Your task to perform on an android device: turn vacation reply on in the gmail app Image 0: 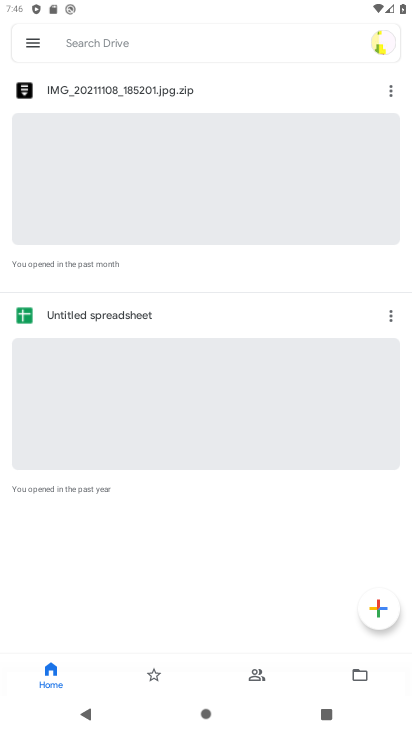
Step 0: press home button
Your task to perform on an android device: turn vacation reply on in the gmail app Image 1: 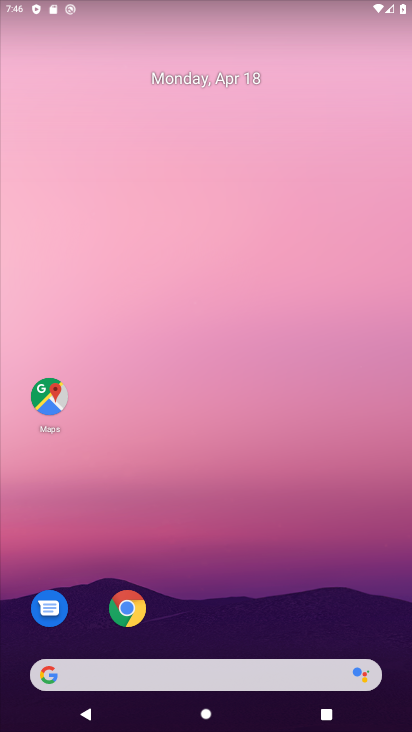
Step 1: drag from (222, 596) to (236, 173)
Your task to perform on an android device: turn vacation reply on in the gmail app Image 2: 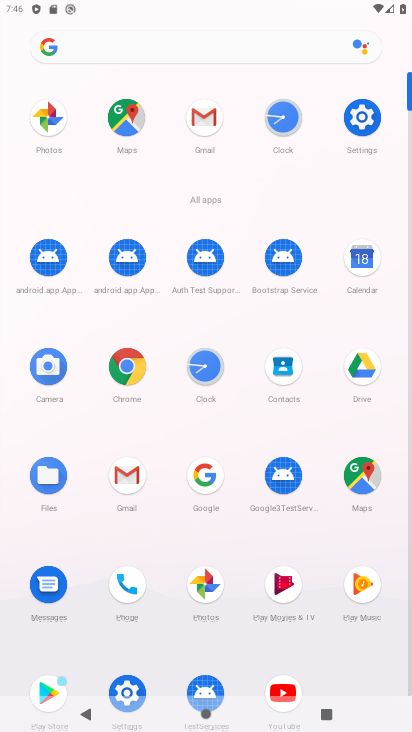
Step 2: click (202, 110)
Your task to perform on an android device: turn vacation reply on in the gmail app Image 3: 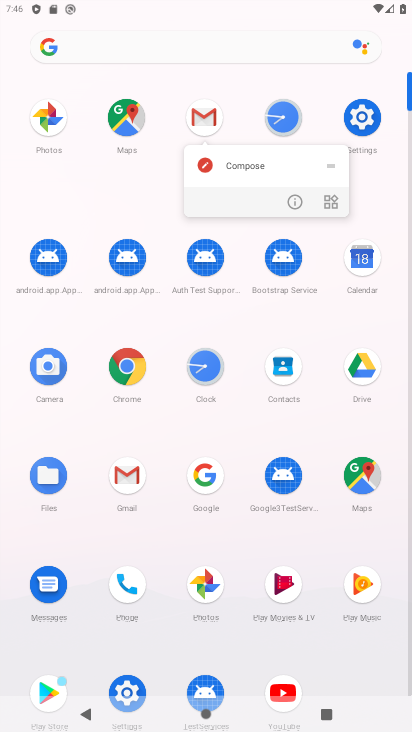
Step 3: click (207, 115)
Your task to perform on an android device: turn vacation reply on in the gmail app Image 4: 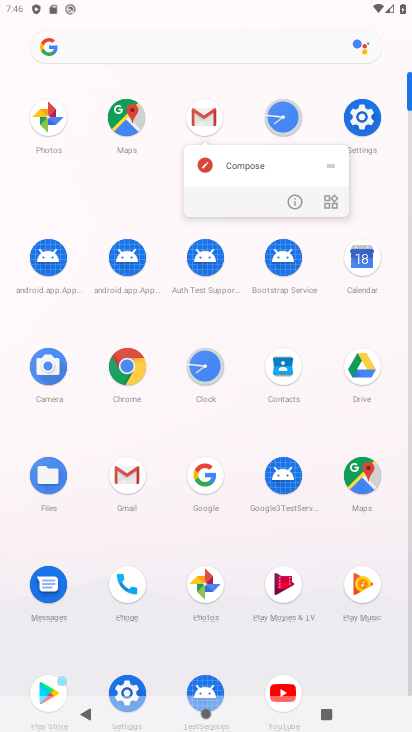
Step 4: click (207, 115)
Your task to perform on an android device: turn vacation reply on in the gmail app Image 5: 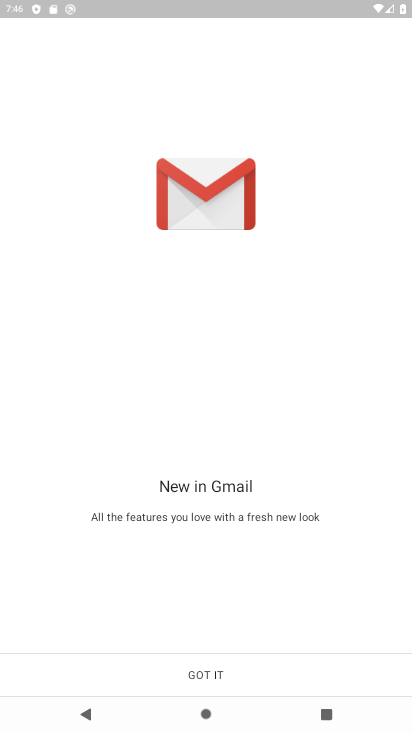
Step 5: click (210, 671)
Your task to perform on an android device: turn vacation reply on in the gmail app Image 6: 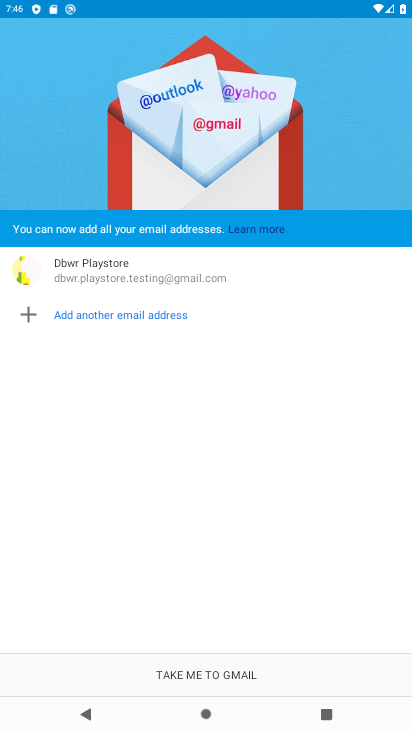
Step 6: click (203, 675)
Your task to perform on an android device: turn vacation reply on in the gmail app Image 7: 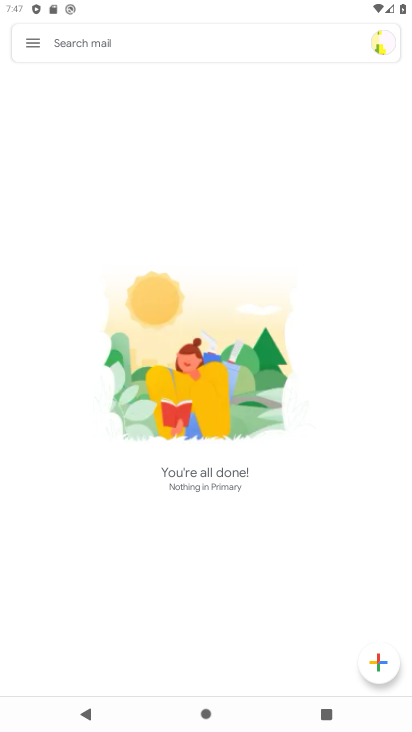
Step 7: click (32, 40)
Your task to perform on an android device: turn vacation reply on in the gmail app Image 8: 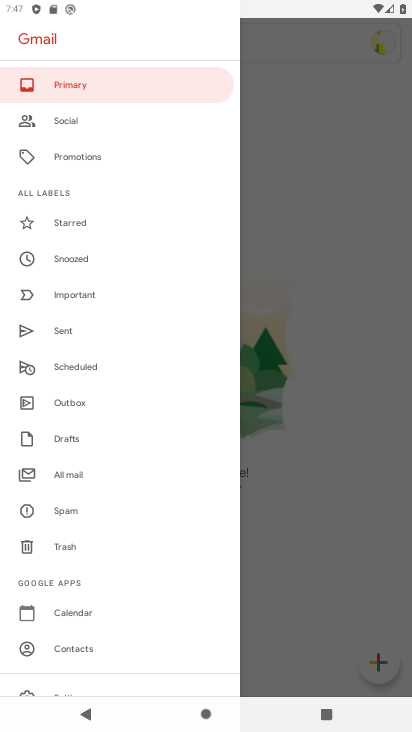
Step 8: drag from (104, 607) to (153, 154)
Your task to perform on an android device: turn vacation reply on in the gmail app Image 9: 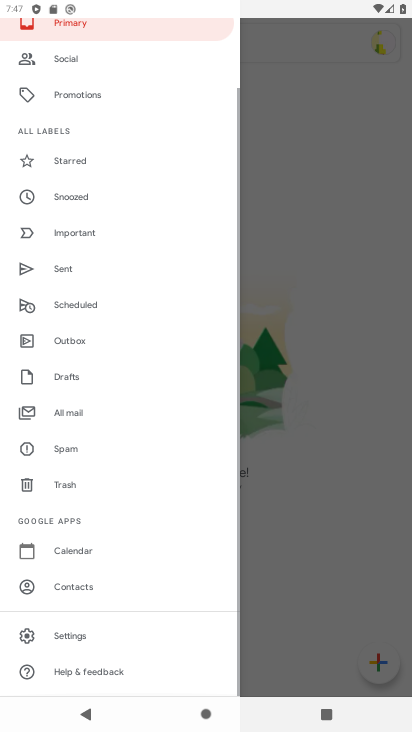
Step 9: click (57, 628)
Your task to perform on an android device: turn vacation reply on in the gmail app Image 10: 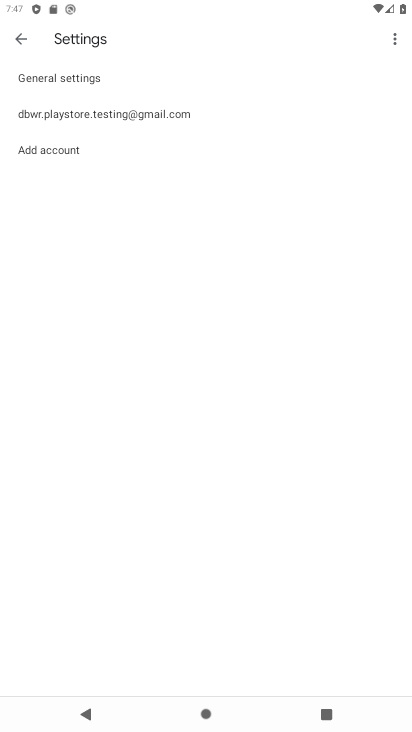
Step 10: click (76, 114)
Your task to perform on an android device: turn vacation reply on in the gmail app Image 11: 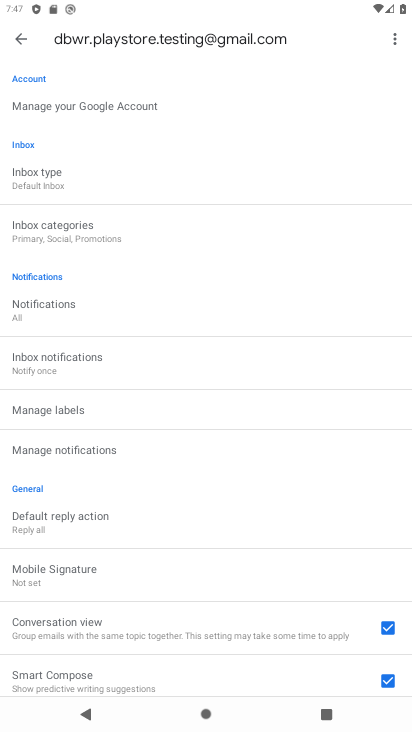
Step 11: drag from (105, 551) to (131, 265)
Your task to perform on an android device: turn vacation reply on in the gmail app Image 12: 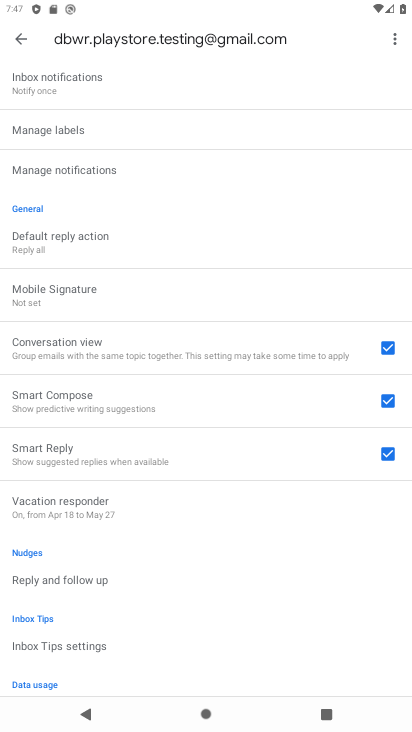
Step 12: click (67, 498)
Your task to perform on an android device: turn vacation reply on in the gmail app Image 13: 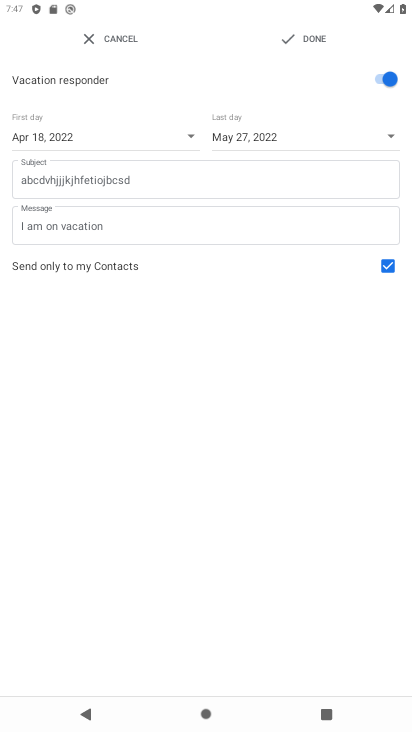
Step 13: task complete